Your task to perform on an android device: Is it going to rain tomorrow? Image 0: 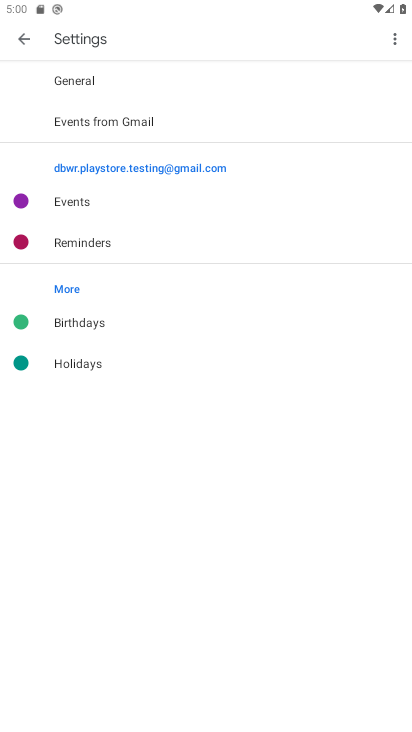
Step 0: press home button
Your task to perform on an android device: Is it going to rain tomorrow? Image 1: 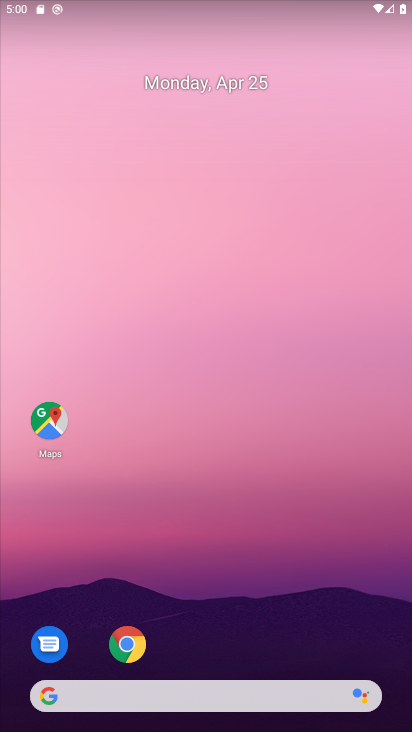
Step 1: click (190, 689)
Your task to perform on an android device: Is it going to rain tomorrow? Image 2: 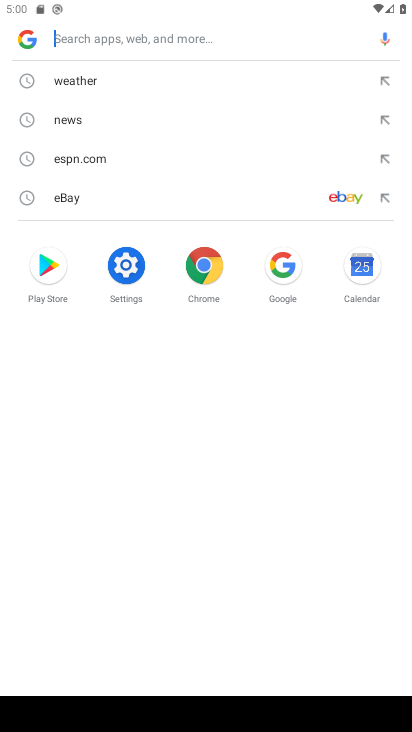
Step 2: type "is it going to rain today? google"
Your task to perform on an android device: Is it going to rain tomorrow? Image 3: 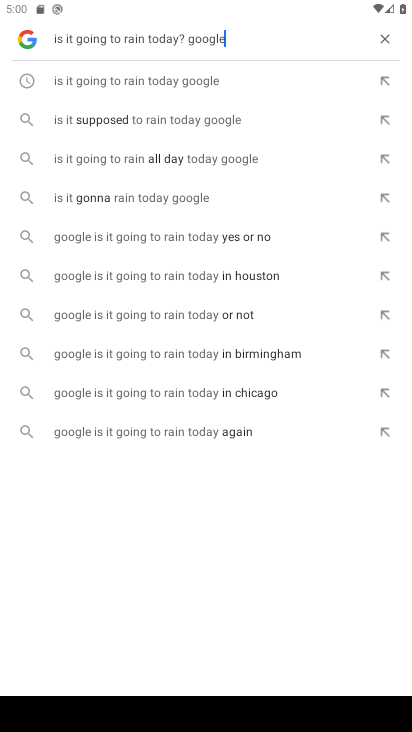
Step 3: click (279, 86)
Your task to perform on an android device: Is it going to rain tomorrow? Image 4: 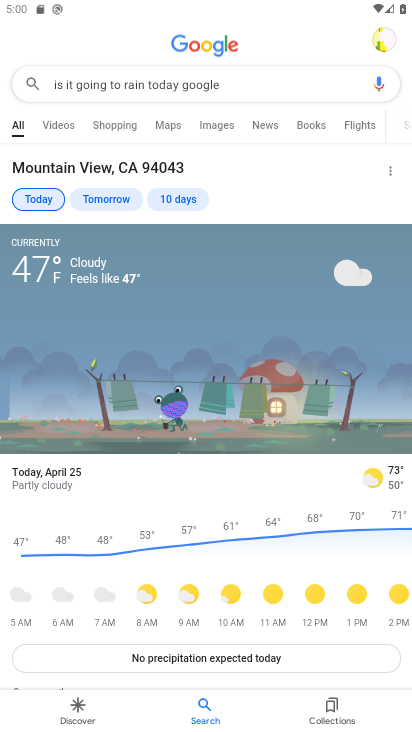
Step 4: task complete